Your task to perform on an android device: turn off airplane mode Image 0: 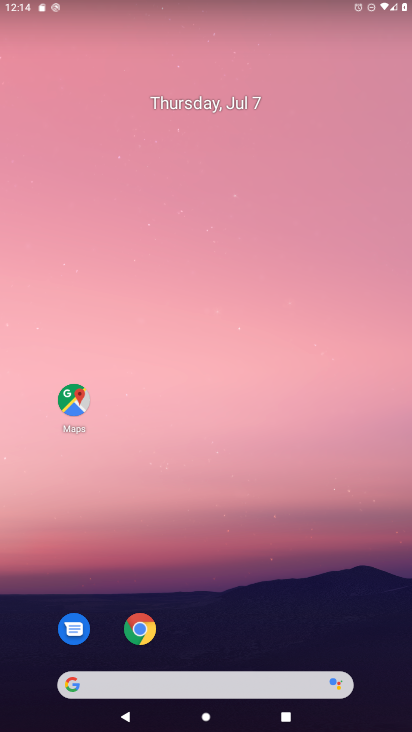
Step 0: drag from (210, 630) to (269, 194)
Your task to perform on an android device: turn off airplane mode Image 1: 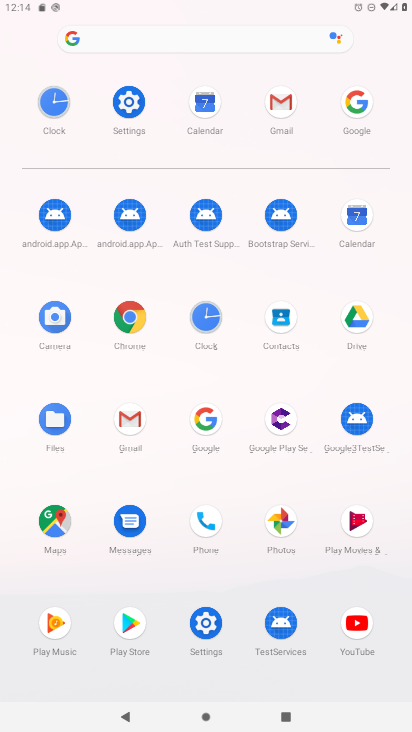
Step 1: click (138, 115)
Your task to perform on an android device: turn off airplane mode Image 2: 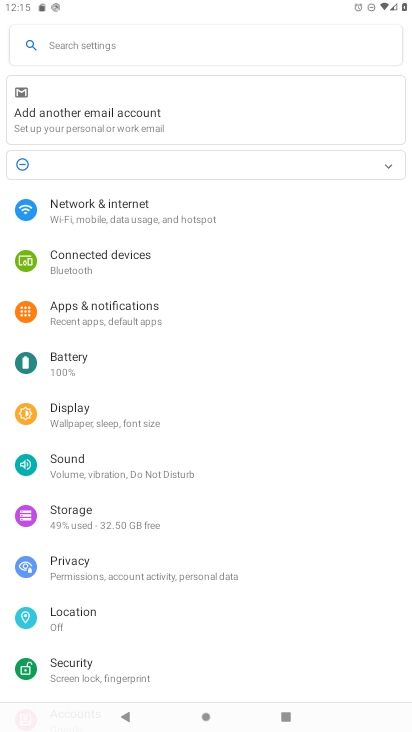
Step 2: click (143, 223)
Your task to perform on an android device: turn off airplane mode Image 3: 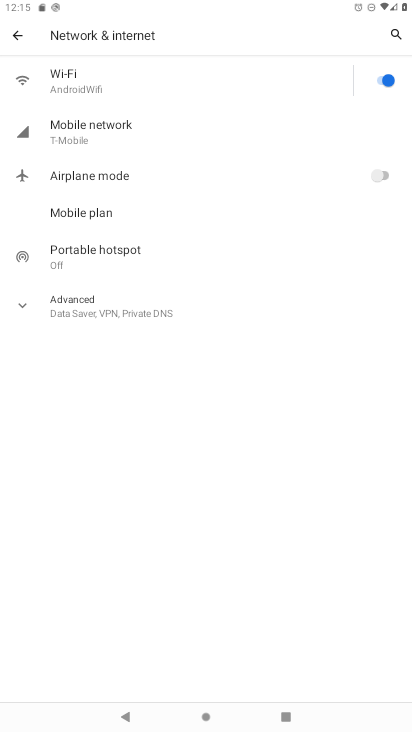
Step 3: task complete